Your task to perform on an android device: change the upload size in google photos Image 0: 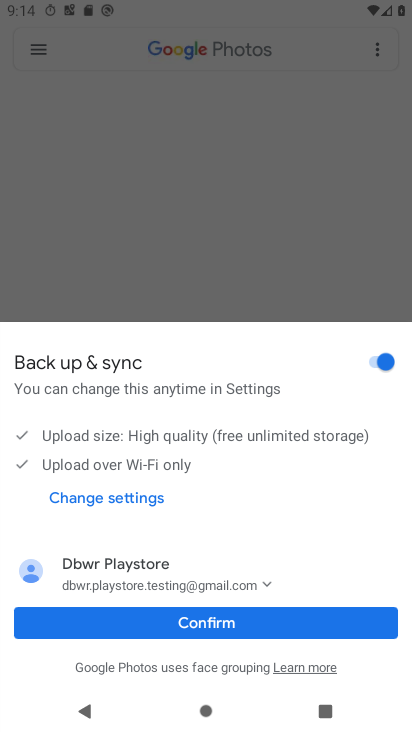
Step 0: press home button
Your task to perform on an android device: change the upload size in google photos Image 1: 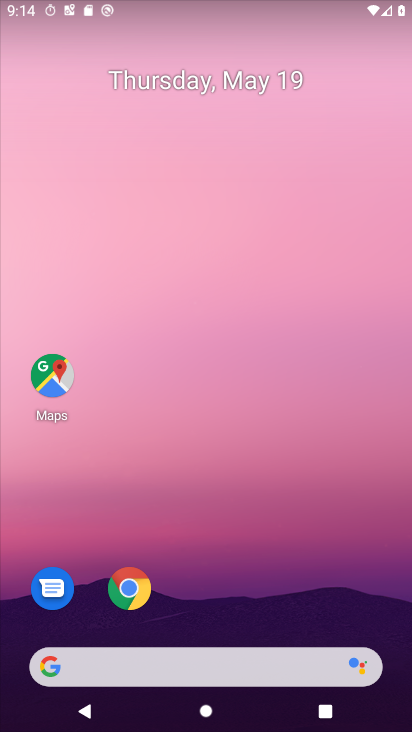
Step 1: drag from (181, 659) to (301, 170)
Your task to perform on an android device: change the upload size in google photos Image 2: 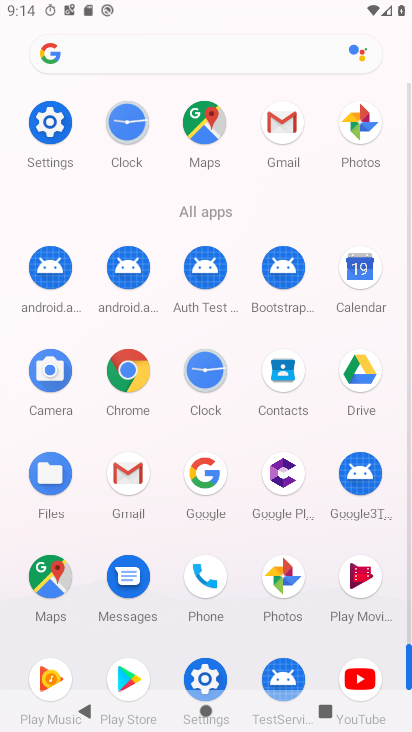
Step 2: click (280, 567)
Your task to perform on an android device: change the upload size in google photos Image 3: 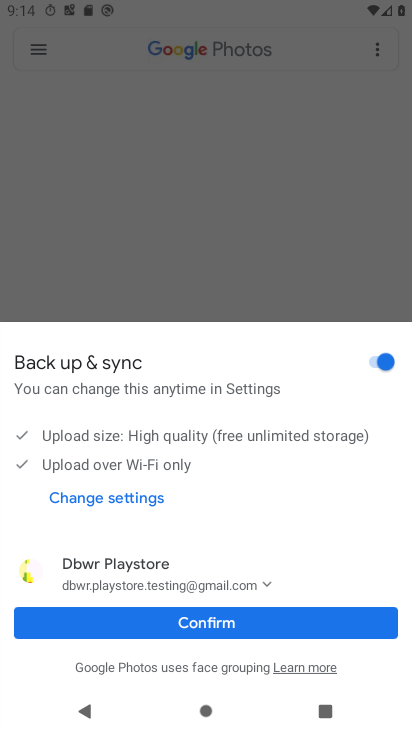
Step 3: click (198, 621)
Your task to perform on an android device: change the upload size in google photos Image 4: 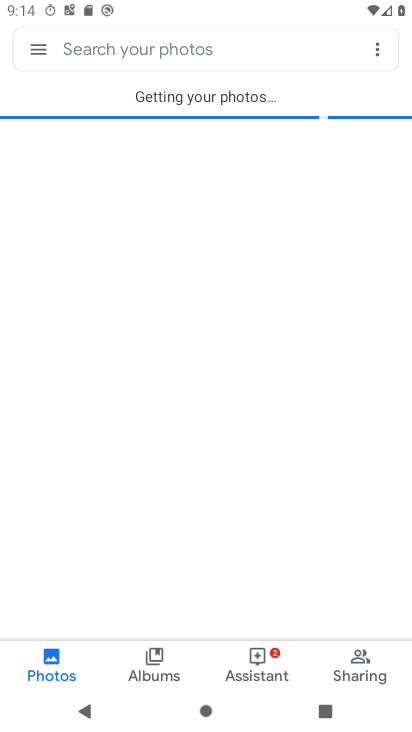
Step 4: click (42, 52)
Your task to perform on an android device: change the upload size in google photos Image 5: 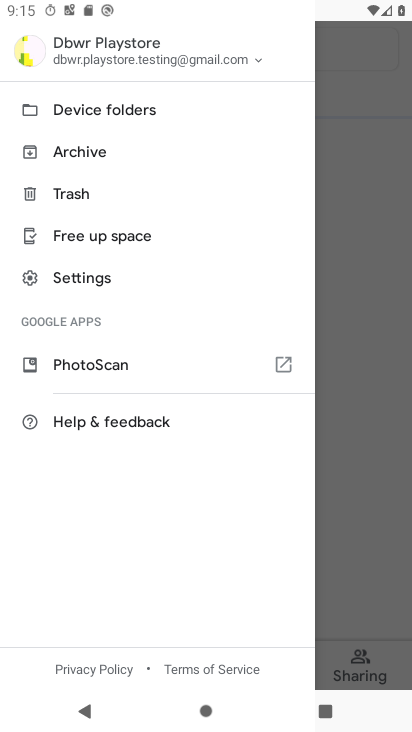
Step 5: click (96, 280)
Your task to perform on an android device: change the upload size in google photos Image 6: 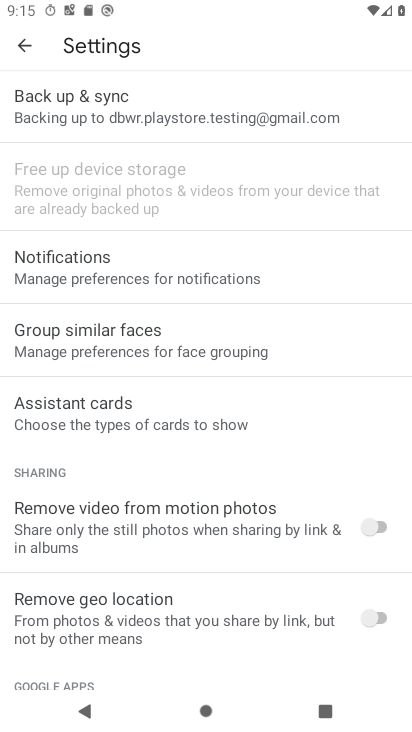
Step 6: click (164, 124)
Your task to perform on an android device: change the upload size in google photos Image 7: 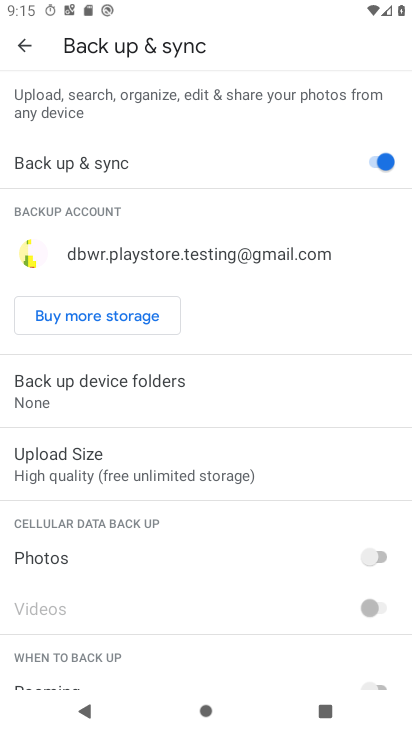
Step 7: click (115, 463)
Your task to perform on an android device: change the upload size in google photos Image 8: 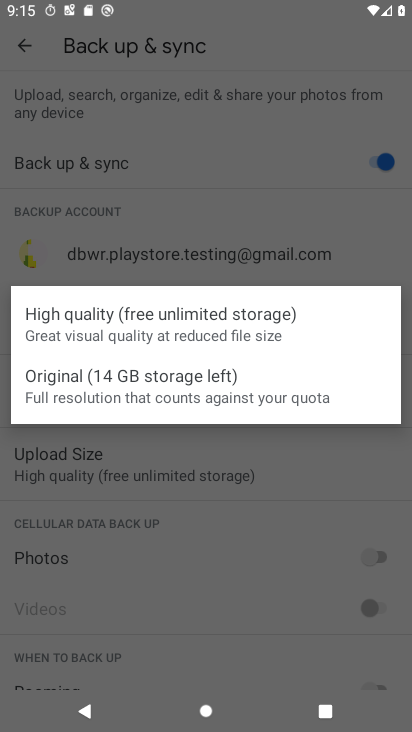
Step 8: click (74, 383)
Your task to perform on an android device: change the upload size in google photos Image 9: 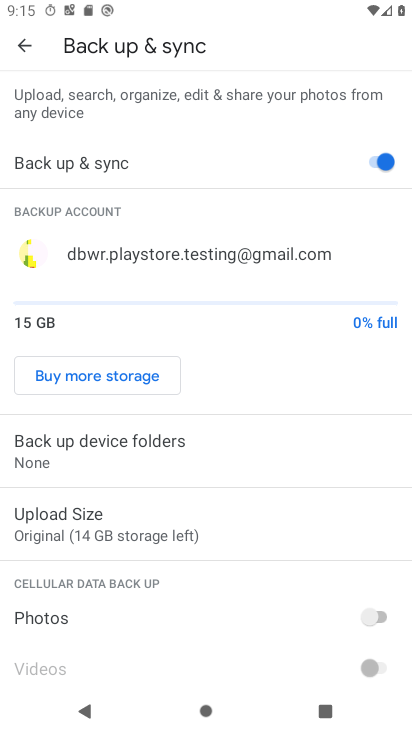
Step 9: task complete